Your task to perform on an android device: turn on improve location accuracy Image 0: 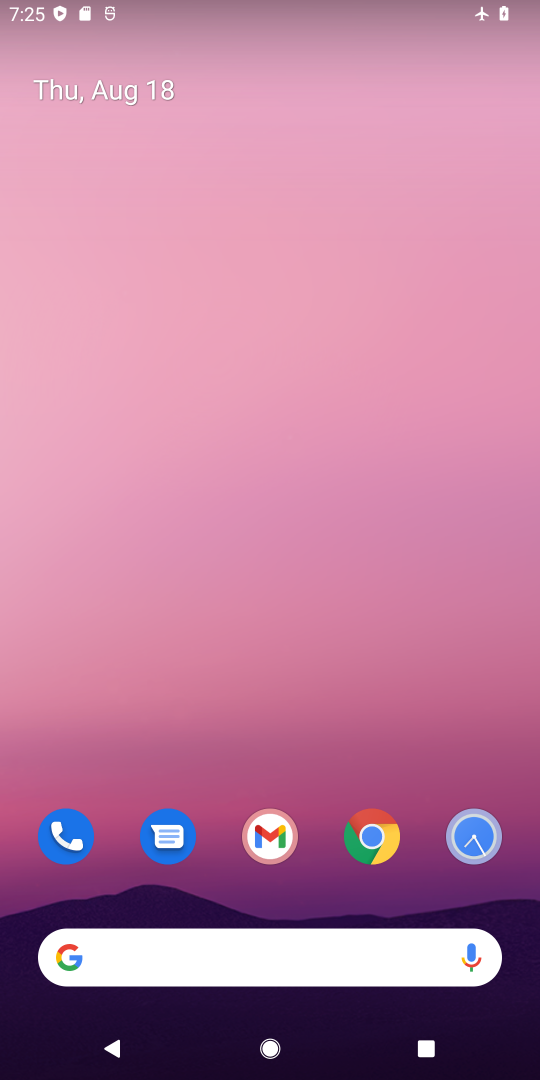
Step 0: drag from (255, 737) to (290, 0)
Your task to perform on an android device: turn on improve location accuracy Image 1: 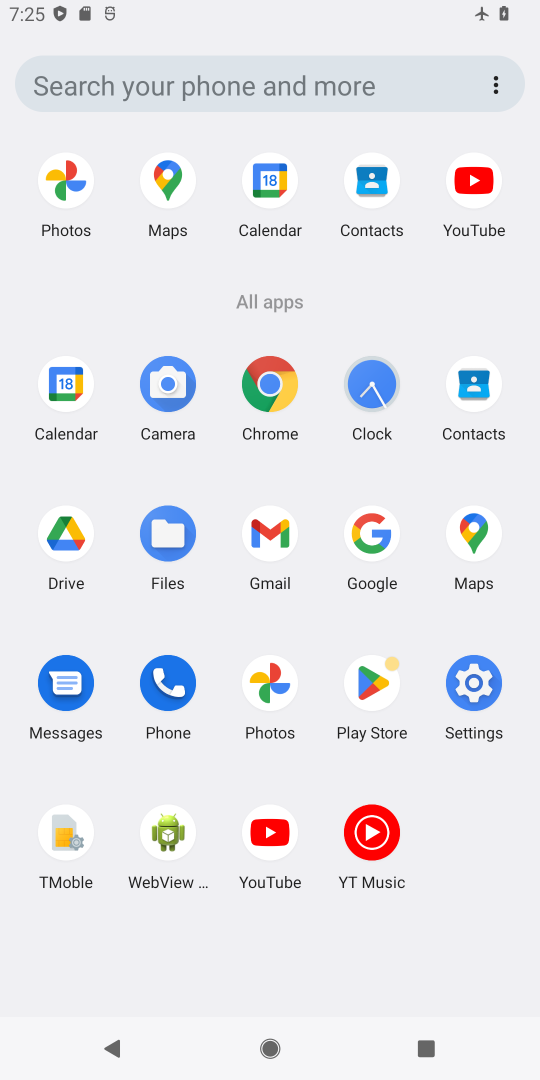
Step 1: click (487, 690)
Your task to perform on an android device: turn on improve location accuracy Image 2: 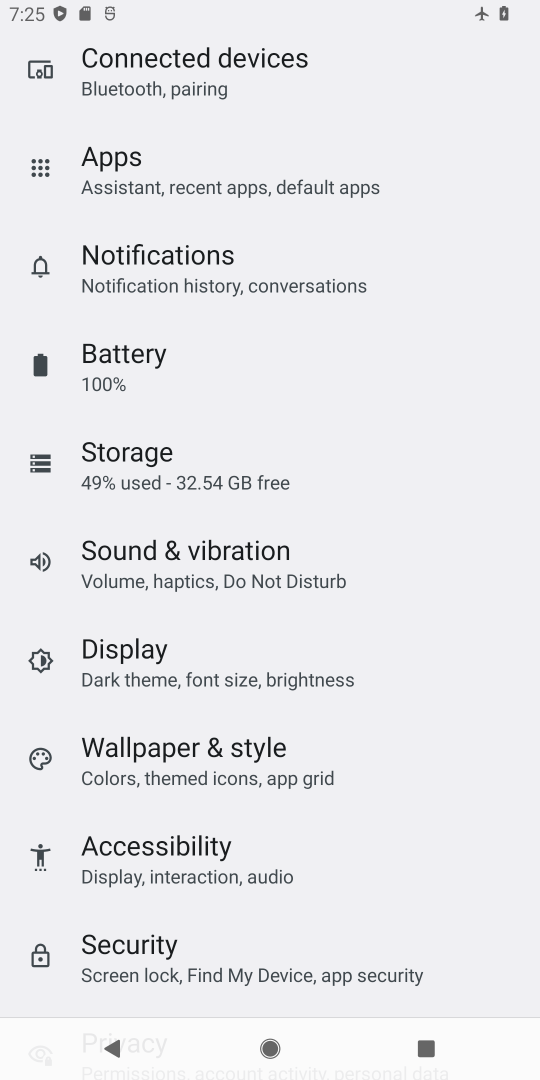
Step 2: drag from (343, 873) to (376, 175)
Your task to perform on an android device: turn on improve location accuracy Image 3: 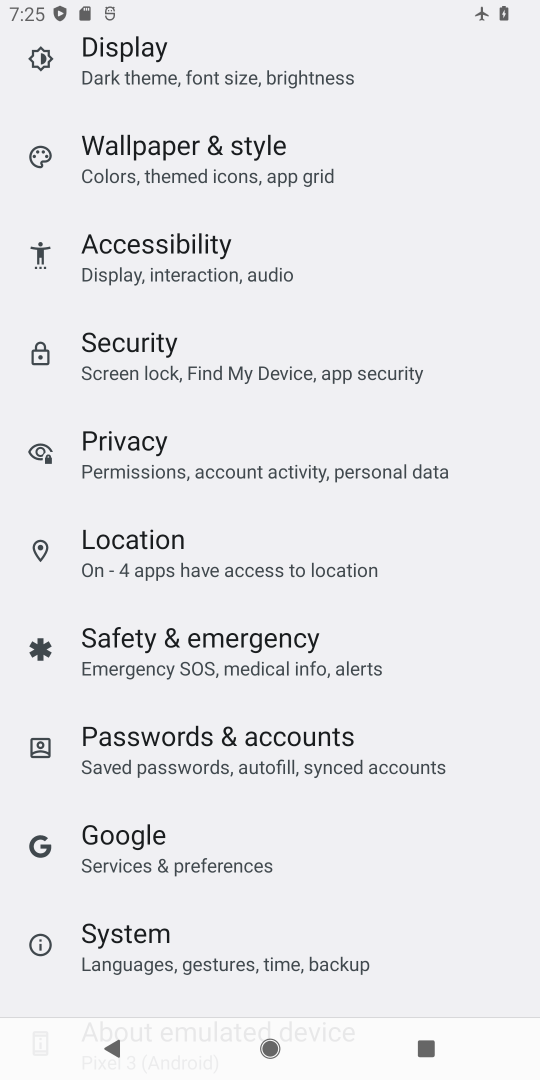
Step 3: click (158, 557)
Your task to perform on an android device: turn on improve location accuracy Image 4: 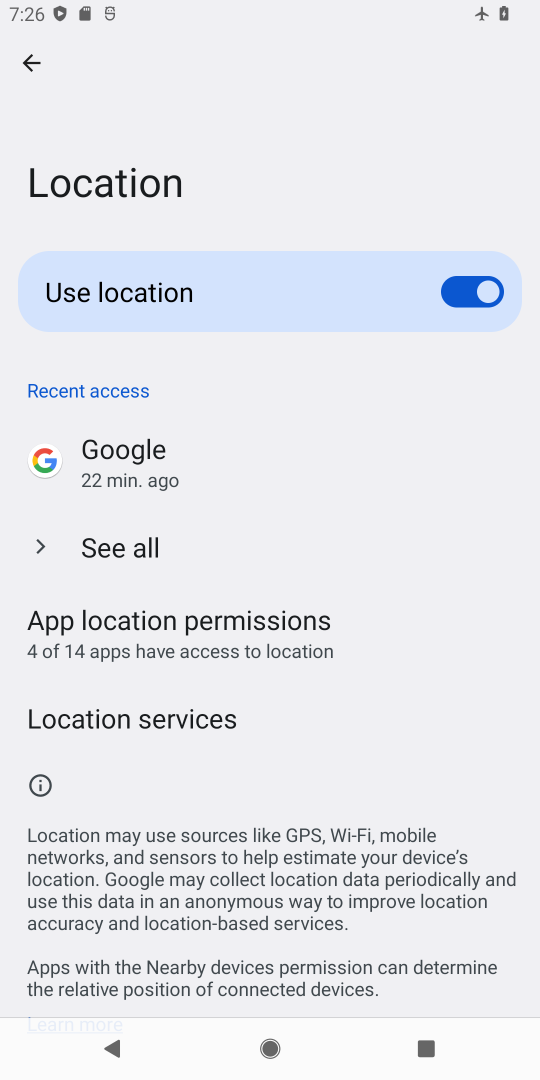
Step 4: click (180, 721)
Your task to perform on an android device: turn on improve location accuracy Image 5: 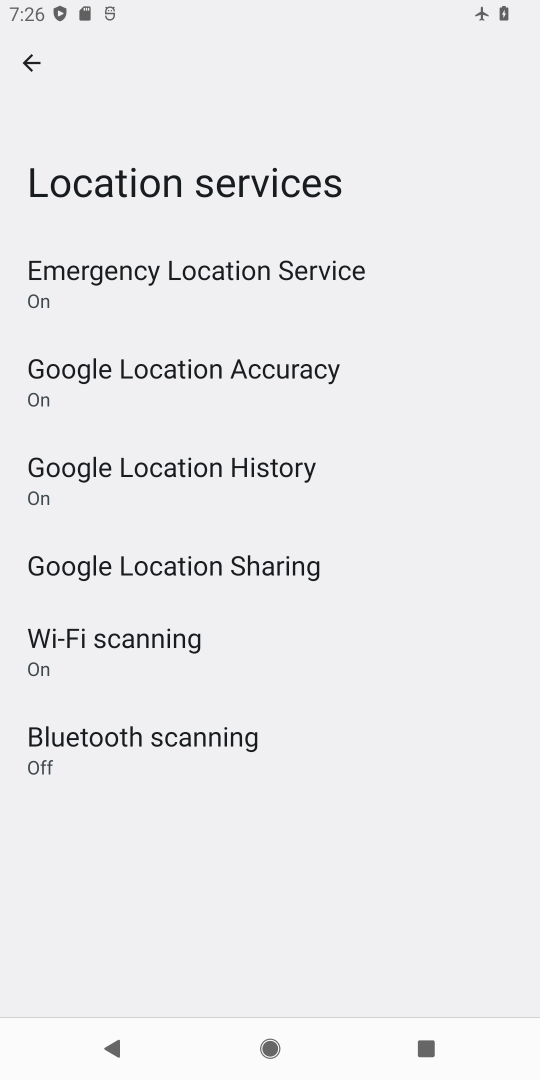
Step 5: click (276, 371)
Your task to perform on an android device: turn on improve location accuracy Image 6: 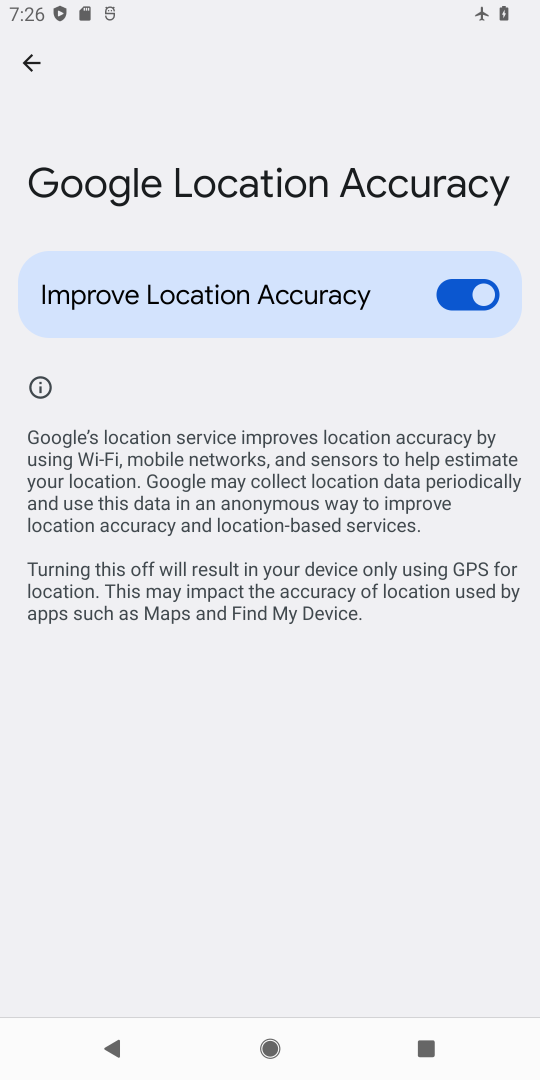
Step 6: task complete